Your task to perform on an android device: Turn on the flashlight Image 0: 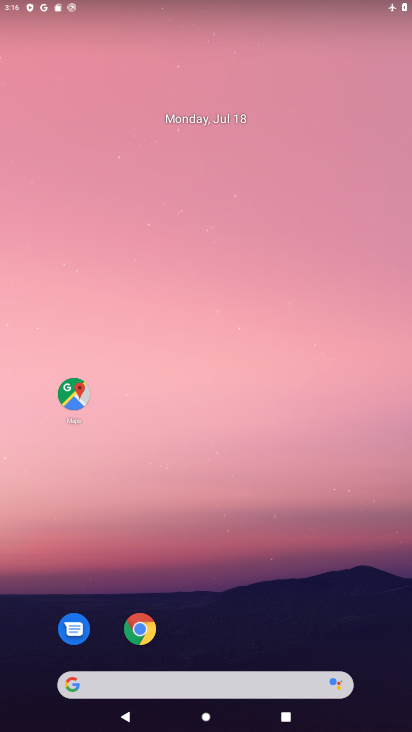
Step 0: drag from (232, 651) to (276, 15)
Your task to perform on an android device: Turn on the flashlight Image 1: 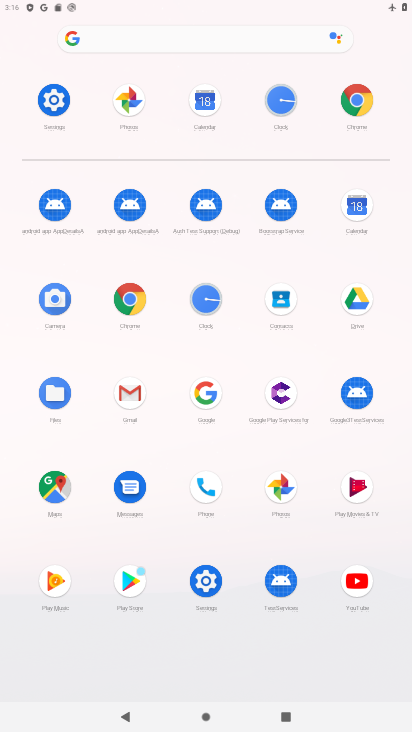
Step 1: click (200, 585)
Your task to perform on an android device: Turn on the flashlight Image 2: 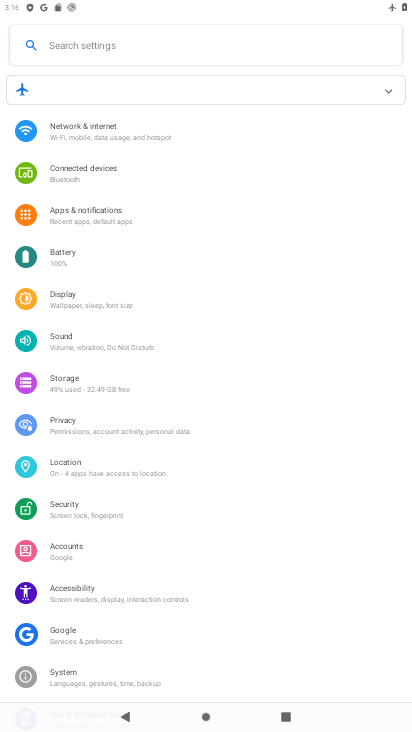
Step 2: task complete